Your task to perform on an android device: refresh tabs in the chrome app Image 0: 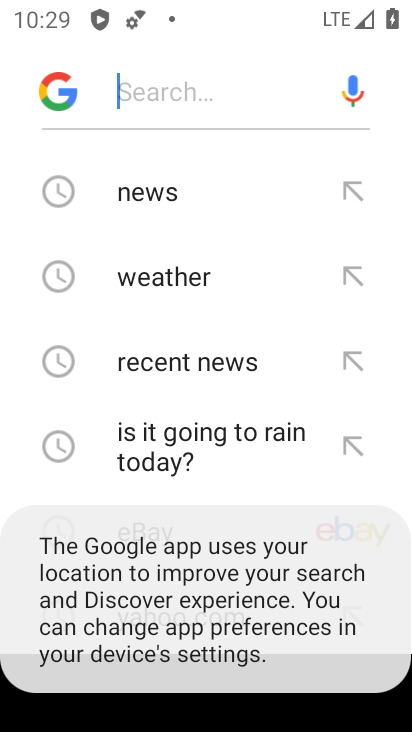
Step 0: press back button
Your task to perform on an android device: refresh tabs in the chrome app Image 1: 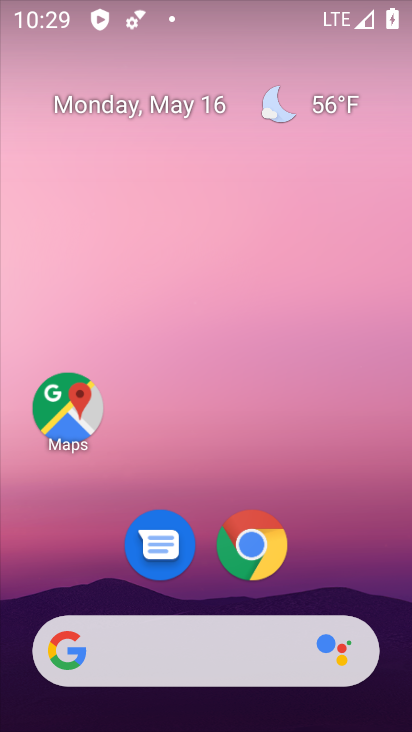
Step 1: click (248, 545)
Your task to perform on an android device: refresh tabs in the chrome app Image 2: 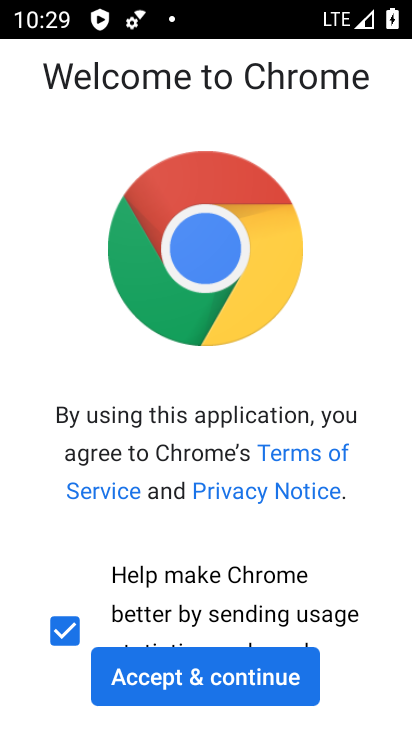
Step 2: click (203, 681)
Your task to perform on an android device: refresh tabs in the chrome app Image 3: 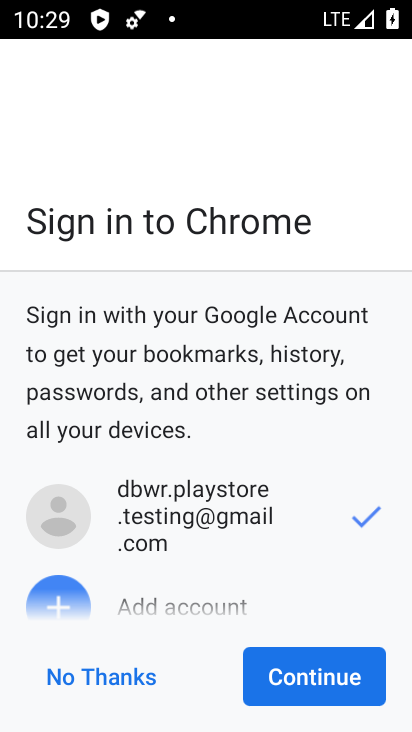
Step 3: click (301, 671)
Your task to perform on an android device: refresh tabs in the chrome app Image 4: 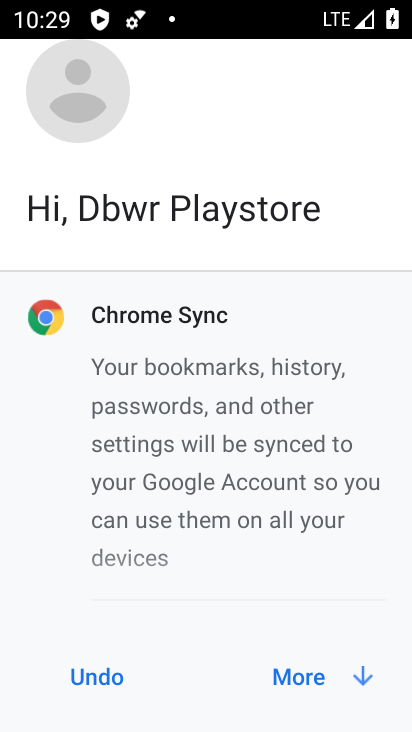
Step 4: click (301, 671)
Your task to perform on an android device: refresh tabs in the chrome app Image 5: 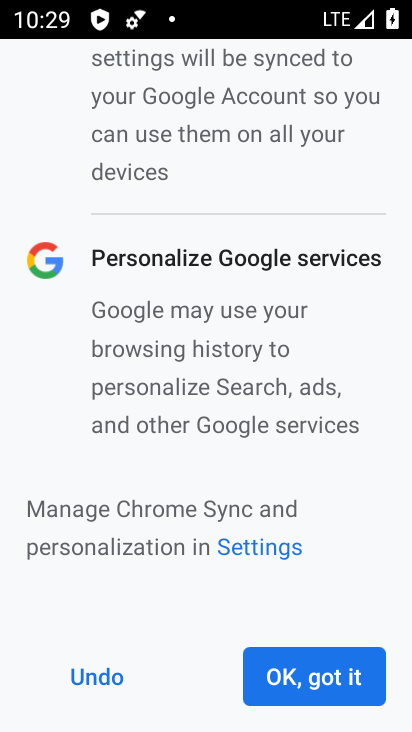
Step 5: click (301, 671)
Your task to perform on an android device: refresh tabs in the chrome app Image 6: 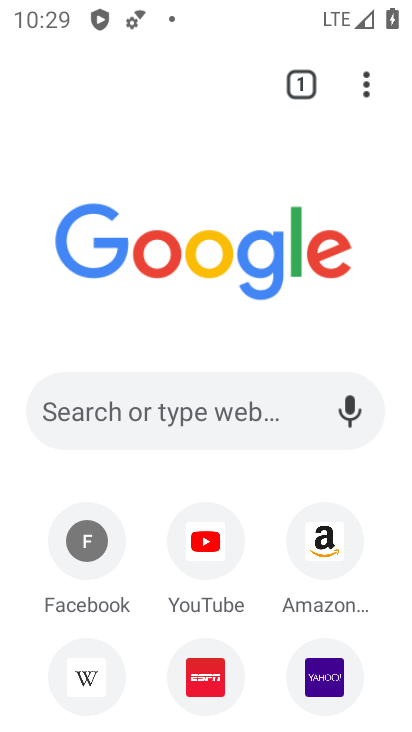
Step 6: click (364, 83)
Your task to perform on an android device: refresh tabs in the chrome app Image 7: 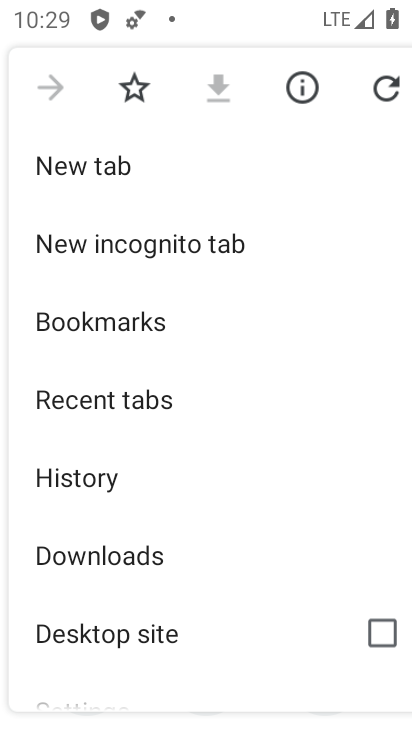
Step 7: click (390, 91)
Your task to perform on an android device: refresh tabs in the chrome app Image 8: 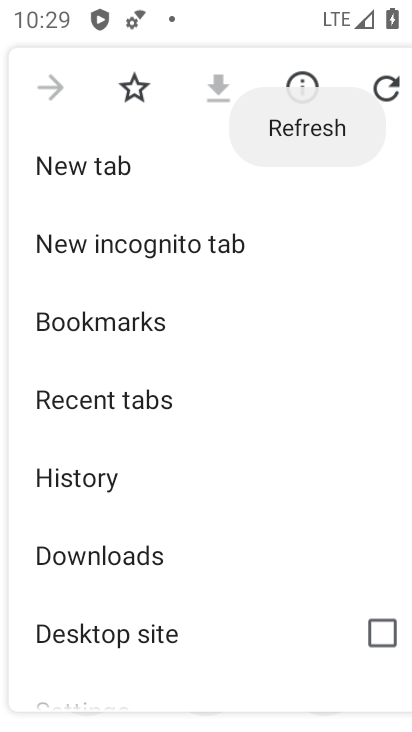
Step 8: click (390, 91)
Your task to perform on an android device: refresh tabs in the chrome app Image 9: 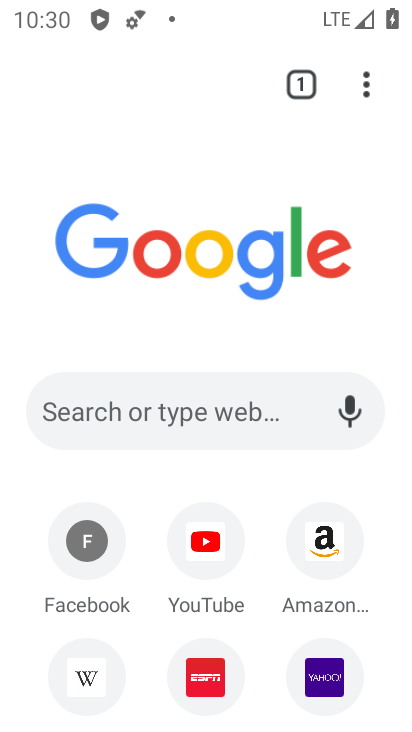
Step 9: task complete